Your task to perform on an android device: see sites visited before in the chrome app Image 0: 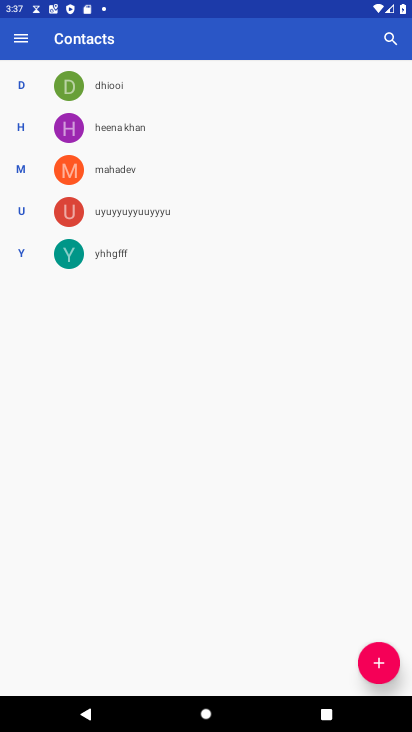
Step 0: press home button
Your task to perform on an android device: see sites visited before in the chrome app Image 1: 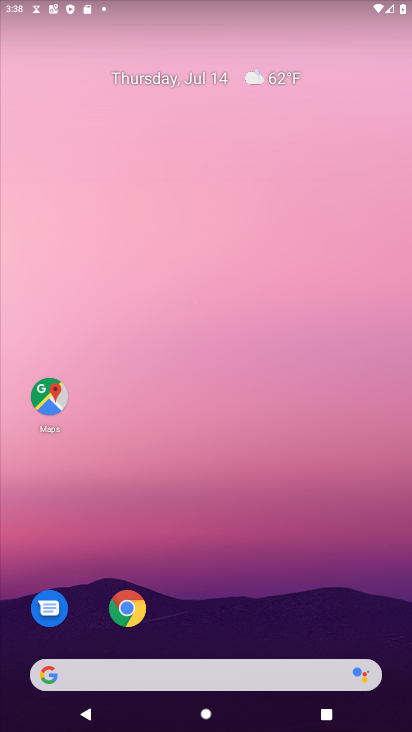
Step 1: click (125, 628)
Your task to perform on an android device: see sites visited before in the chrome app Image 2: 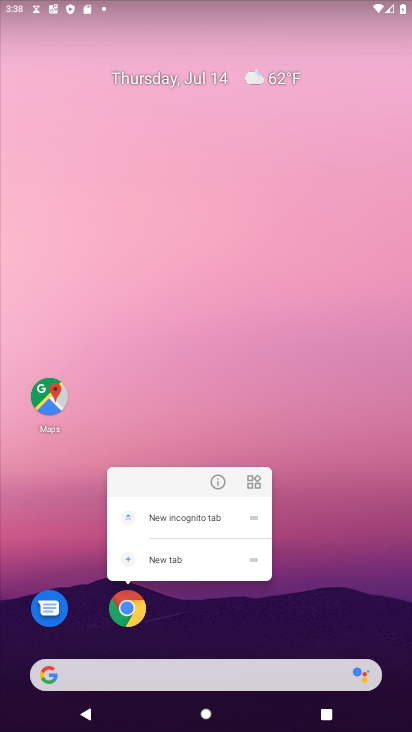
Step 2: click (134, 611)
Your task to perform on an android device: see sites visited before in the chrome app Image 3: 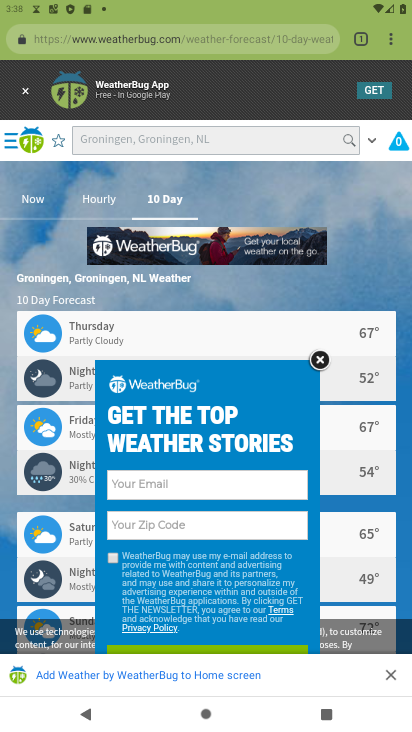
Step 3: task complete